Your task to perform on an android device: Clear all items from cart on walmart. Search for "usb-b" on walmart, select the first entry, add it to the cart, then select checkout. Image 0: 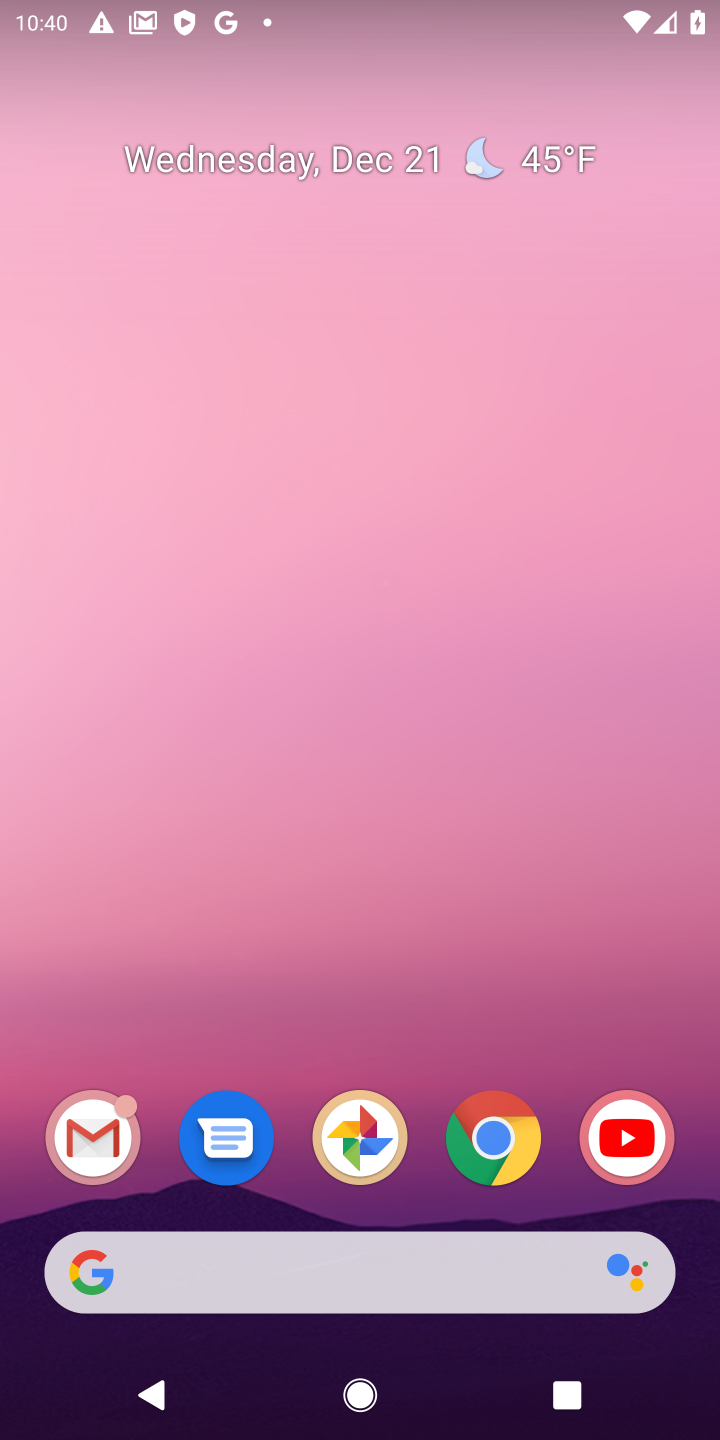
Step 0: click (494, 1154)
Your task to perform on an android device: Clear all items from cart on walmart. Search for "usb-b" on walmart, select the first entry, add it to the cart, then select checkout. Image 1: 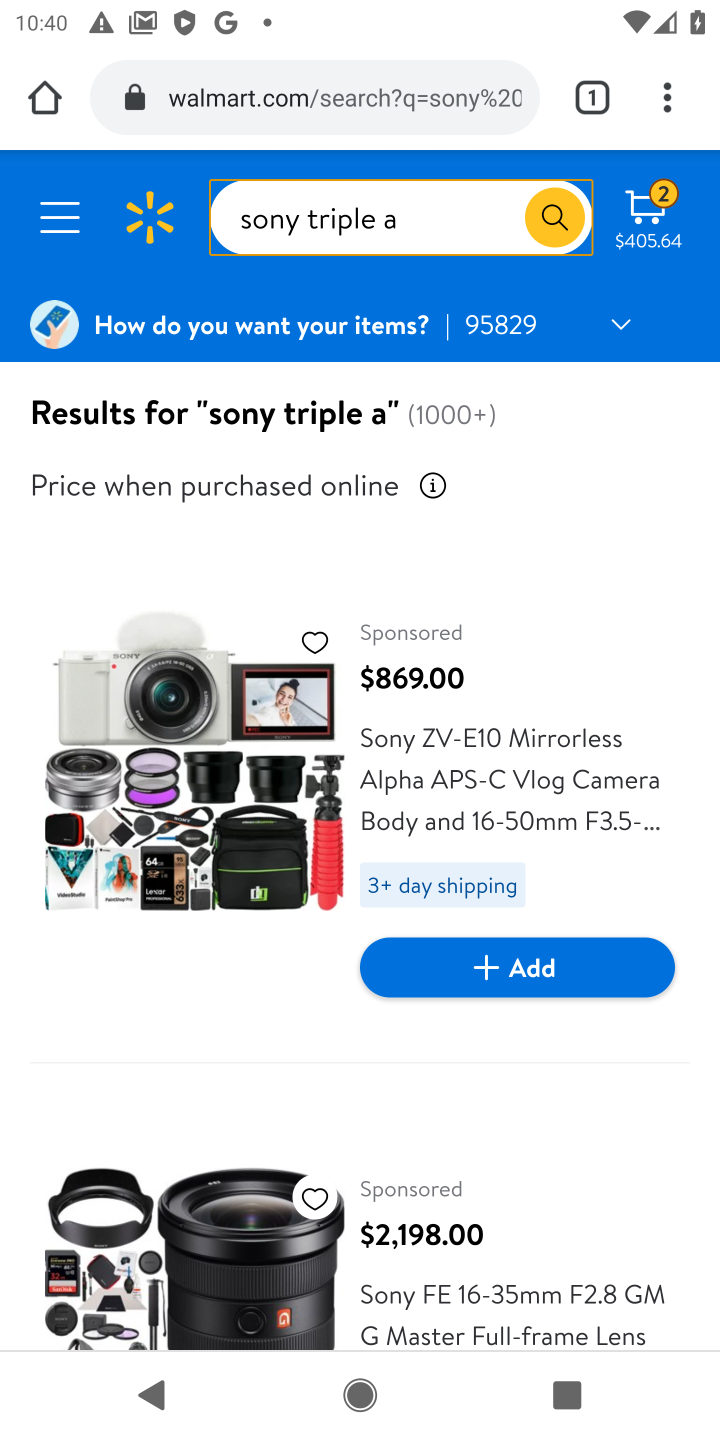
Step 1: click (652, 202)
Your task to perform on an android device: Clear all items from cart on walmart. Search for "usb-b" on walmart, select the first entry, add it to the cart, then select checkout. Image 2: 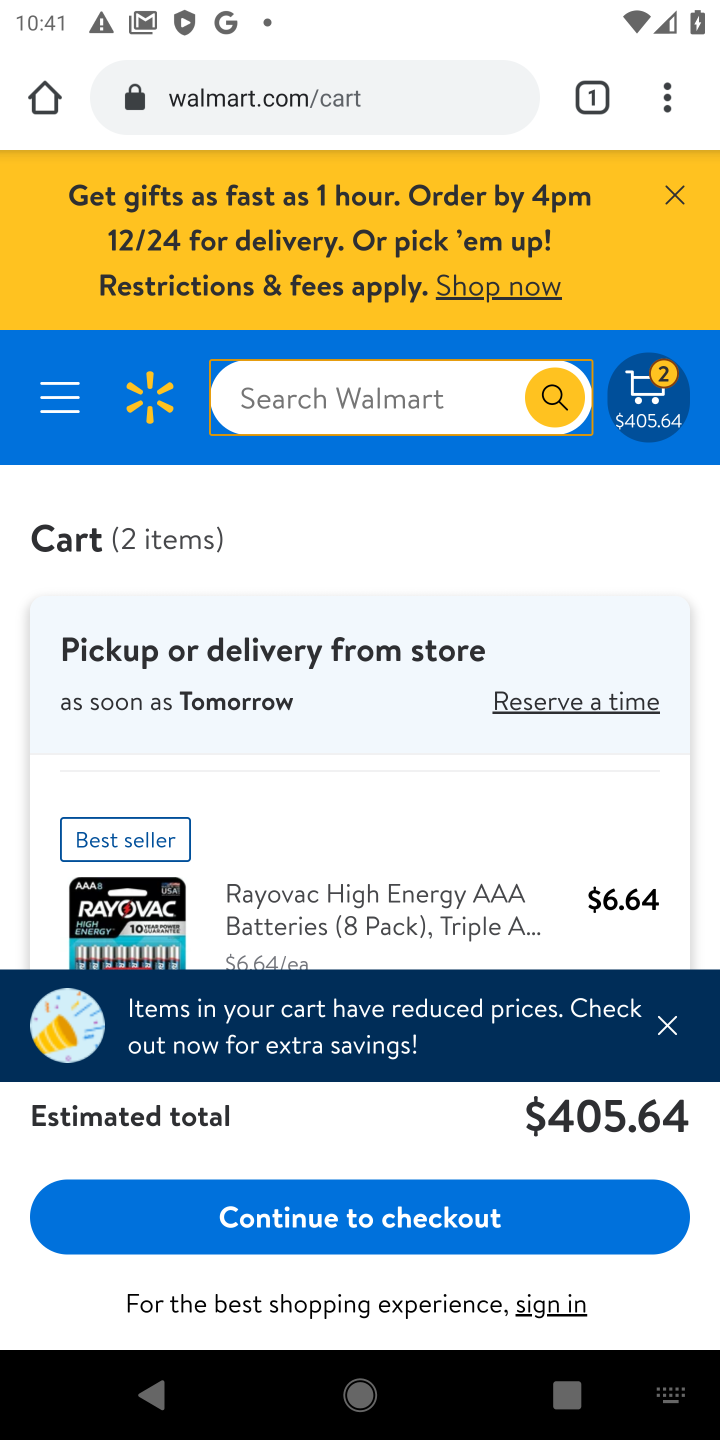
Step 2: drag from (438, 797) to (423, 265)
Your task to perform on an android device: Clear all items from cart on walmart. Search for "usb-b" on walmart, select the first entry, add it to the cart, then select checkout. Image 3: 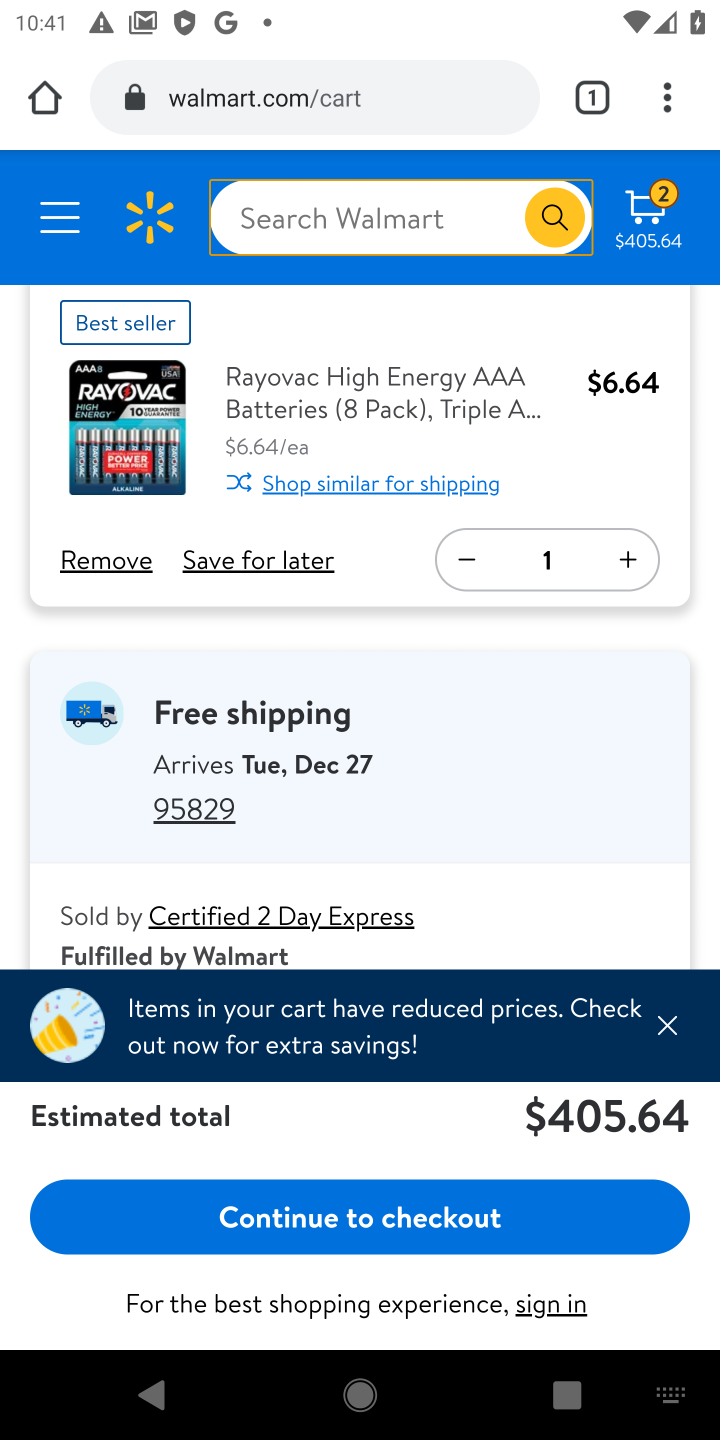
Step 3: click (389, 791)
Your task to perform on an android device: Clear all items from cart on walmart. Search for "usb-b" on walmart, select the first entry, add it to the cart, then select checkout. Image 4: 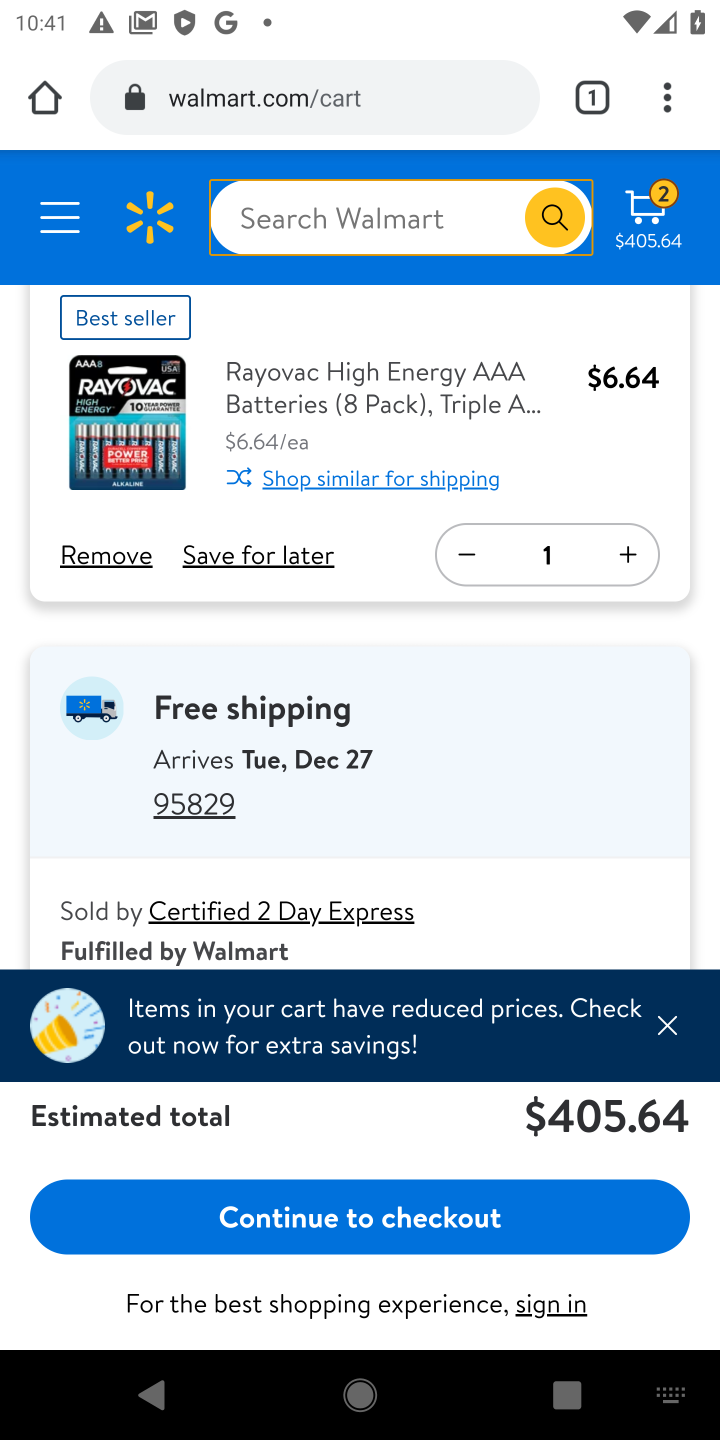
Step 4: click (98, 550)
Your task to perform on an android device: Clear all items from cart on walmart. Search for "usb-b" on walmart, select the first entry, add it to the cart, then select checkout. Image 5: 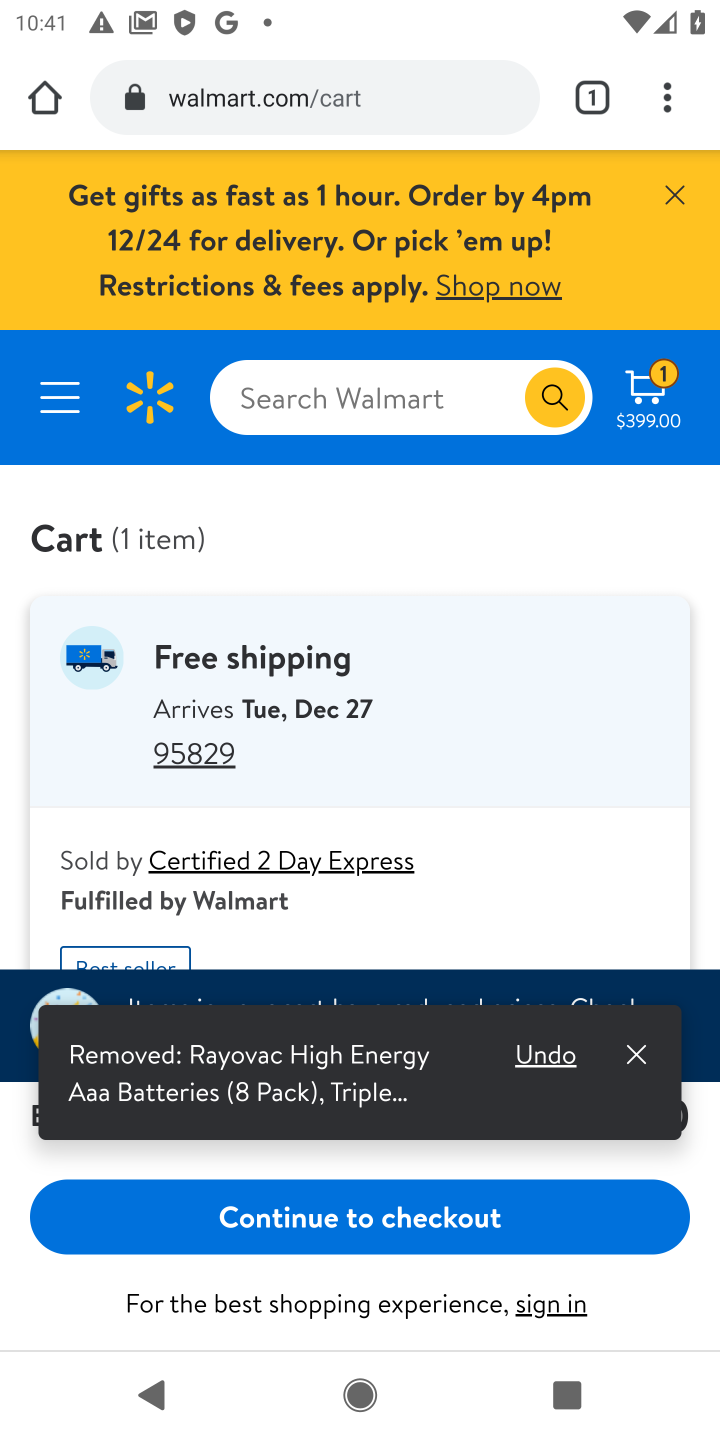
Step 5: drag from (326, 802) to (279, 344)
Your task to perform on an android device: Clear all items from cart on walmart. Search for "usb-b" on walmart, select the first entry, add it to the cart, then select checkout. Image 6: 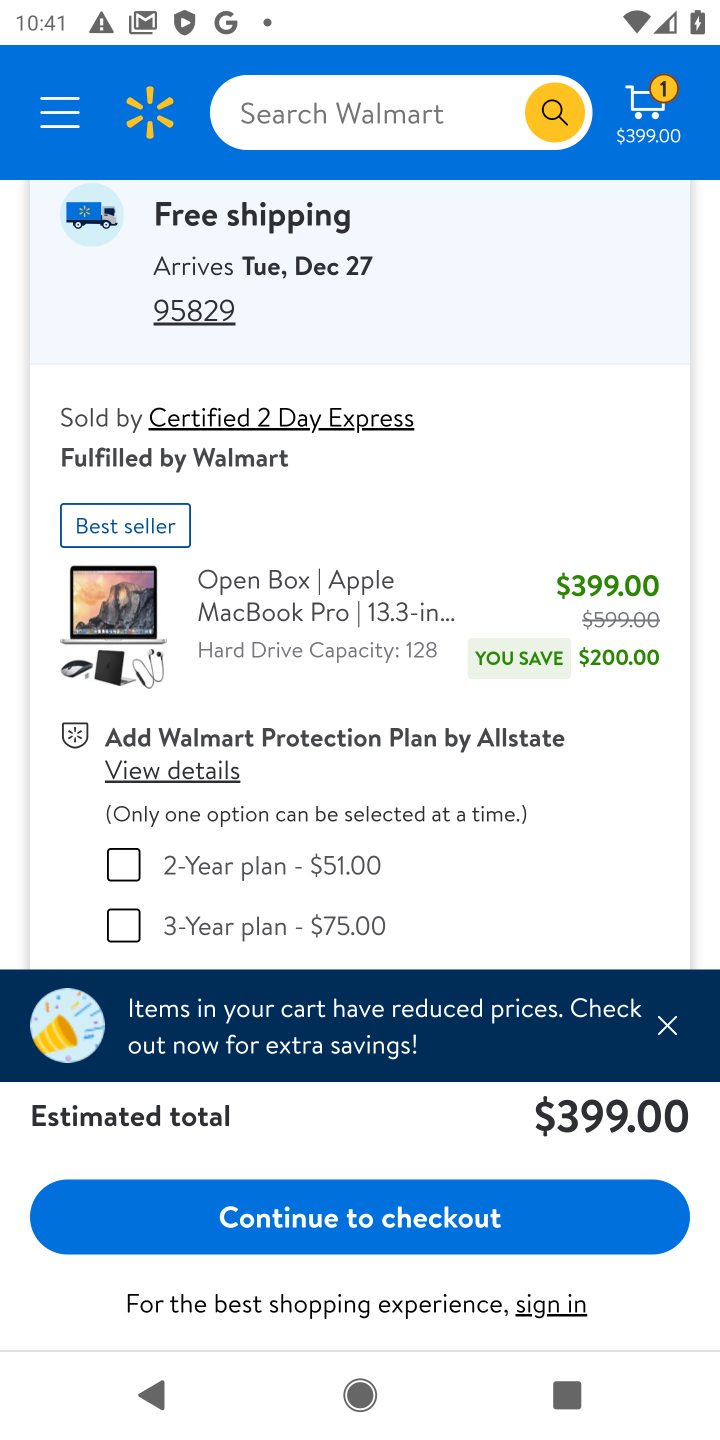
Step 6: drag from (325, 713) to (316, 474)
Your task to perform on an android device: Clear all items from cart on walmart. Search for "usb-b" on walmart, select the first entry, add it to the cart, then select checkout. Image 7: 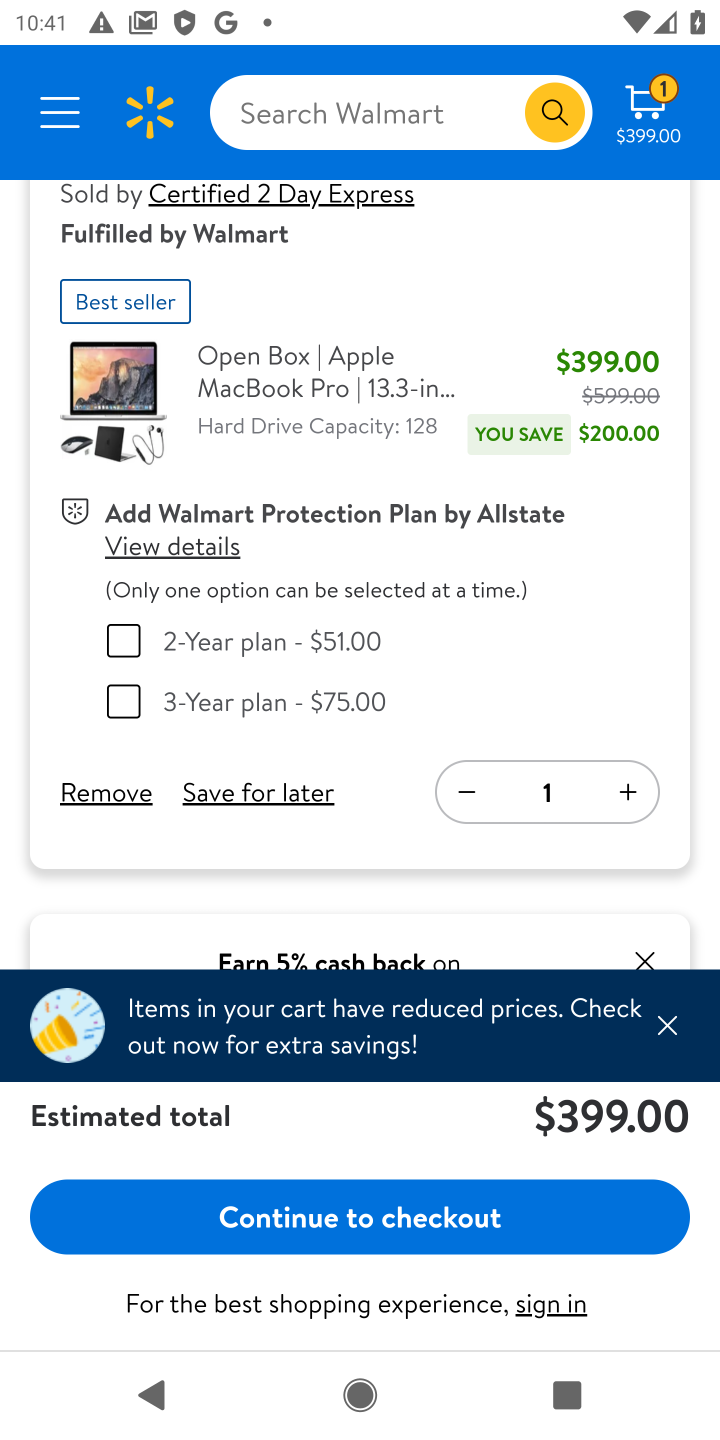
Step 7: click (81, 796)
Your task to perform on an android device: Clear all items from cart on walmart. Search for "usb-b" on walmart, select the first entry, add it to the cart, then select checkout. Image 8: 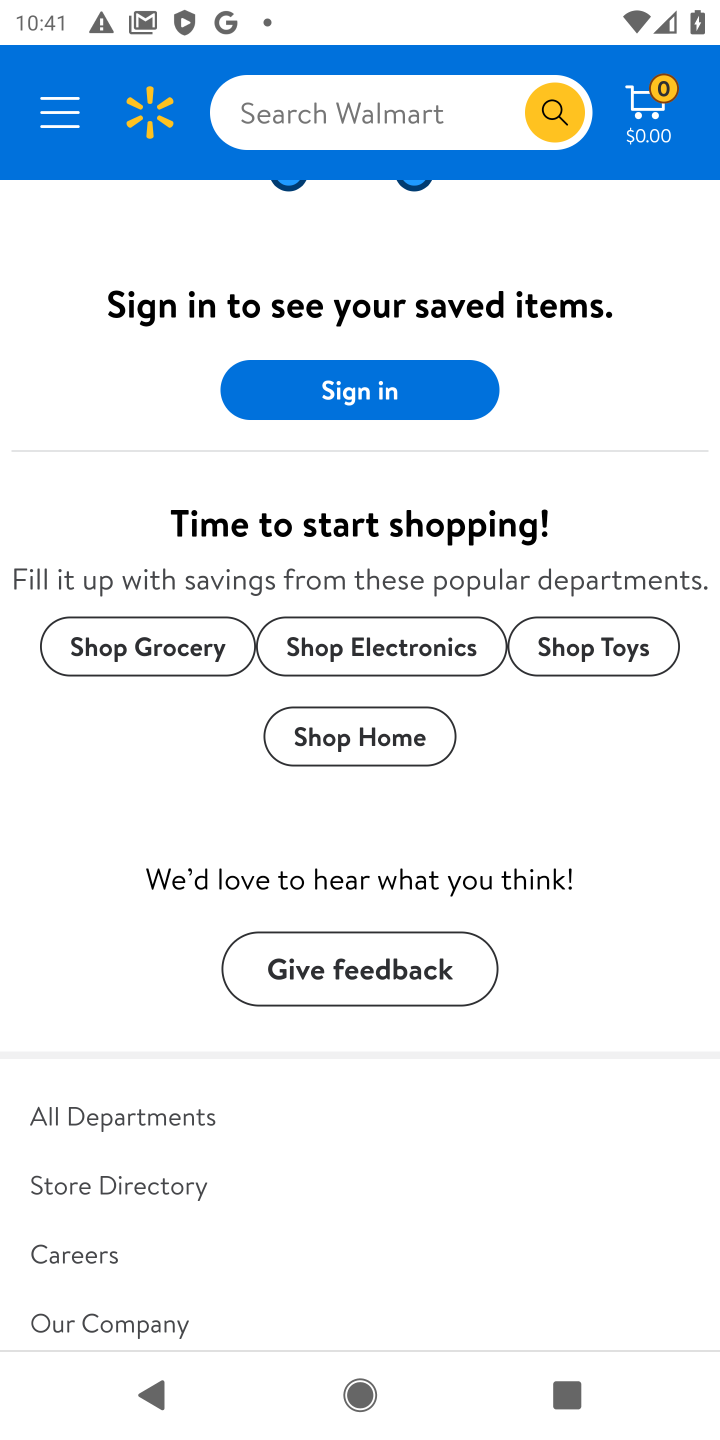
Step 8: click (285, 125)
Your task to perform on an android device: Clear all items from cart on walmart. Search for "usb-b" on walmart, select the first entry, add it to the cart, then select checkout. Image 9: 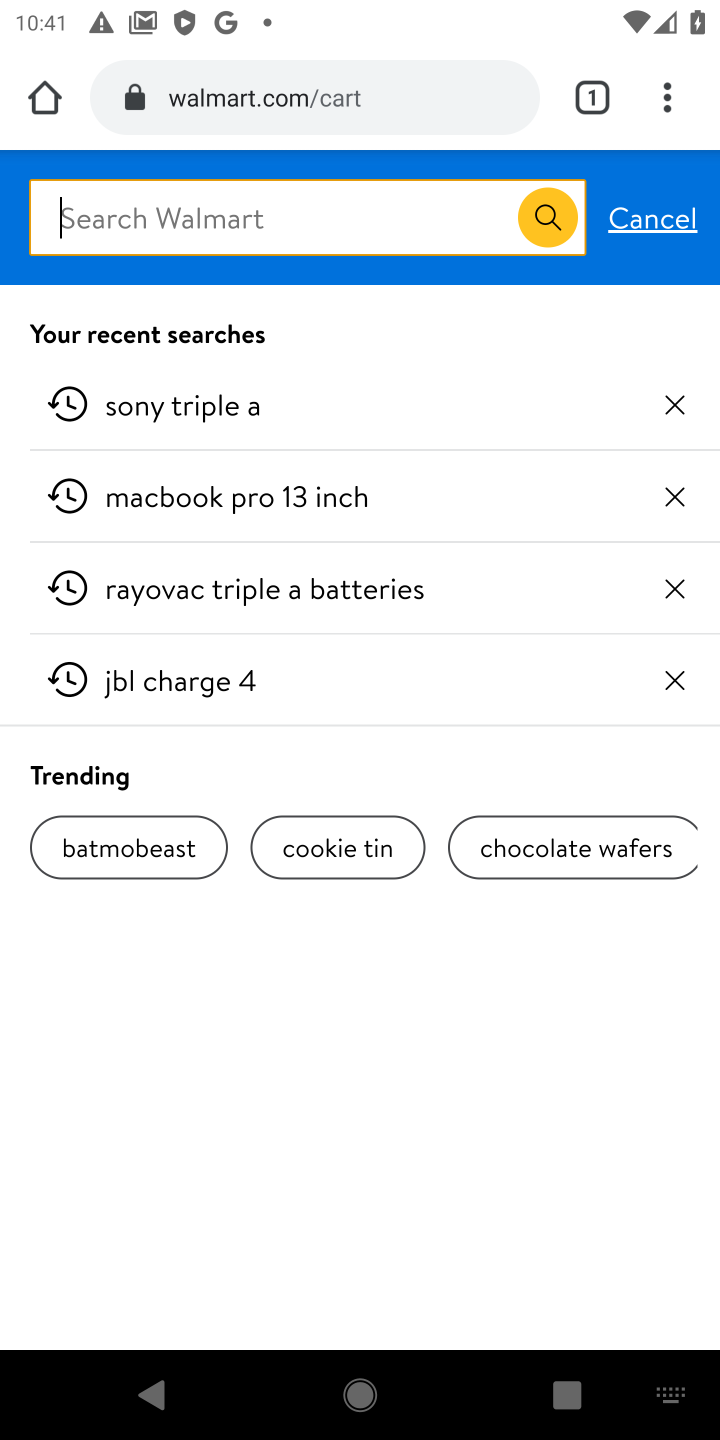
Step 9: type "usb-b"
Your task to perform on an android device: Clear all items from cart on walmart. Search for "usb-b" on walmart, select the first entry, add it to the cart, then select checkout. Image 10: 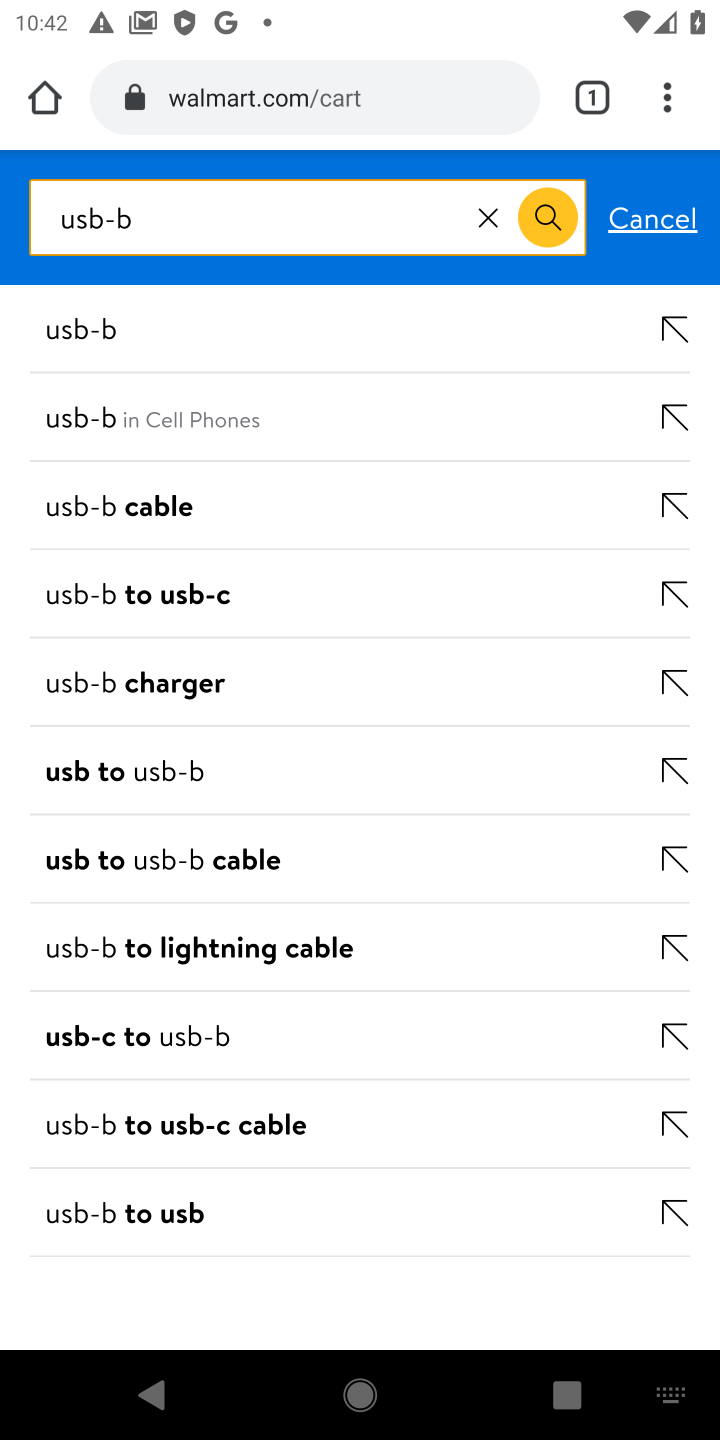
Step 10: click (100, 331)
Your task to perform on an android device: Clear all items from cart on walmart. Search for "usb-b" on walmart, select the first entry, add it to the cart, then select checkout. Image 11: 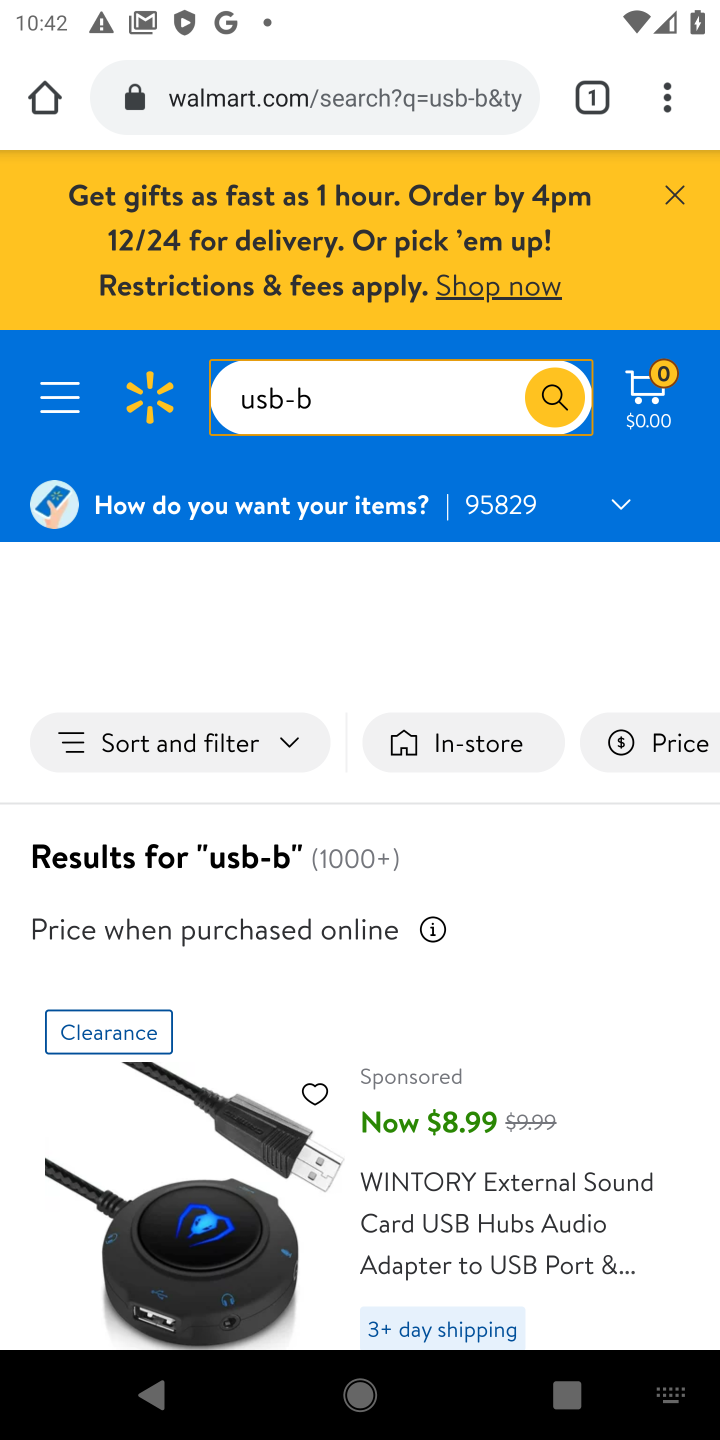
Step 11: drag from (325, 1145) to (322, 751)
Your task to perform on an android device: Clear all items from cart on walmart. Search for "usb-b" on walmart, select the first entry, add it to the cart, then select checkout. Image 12: 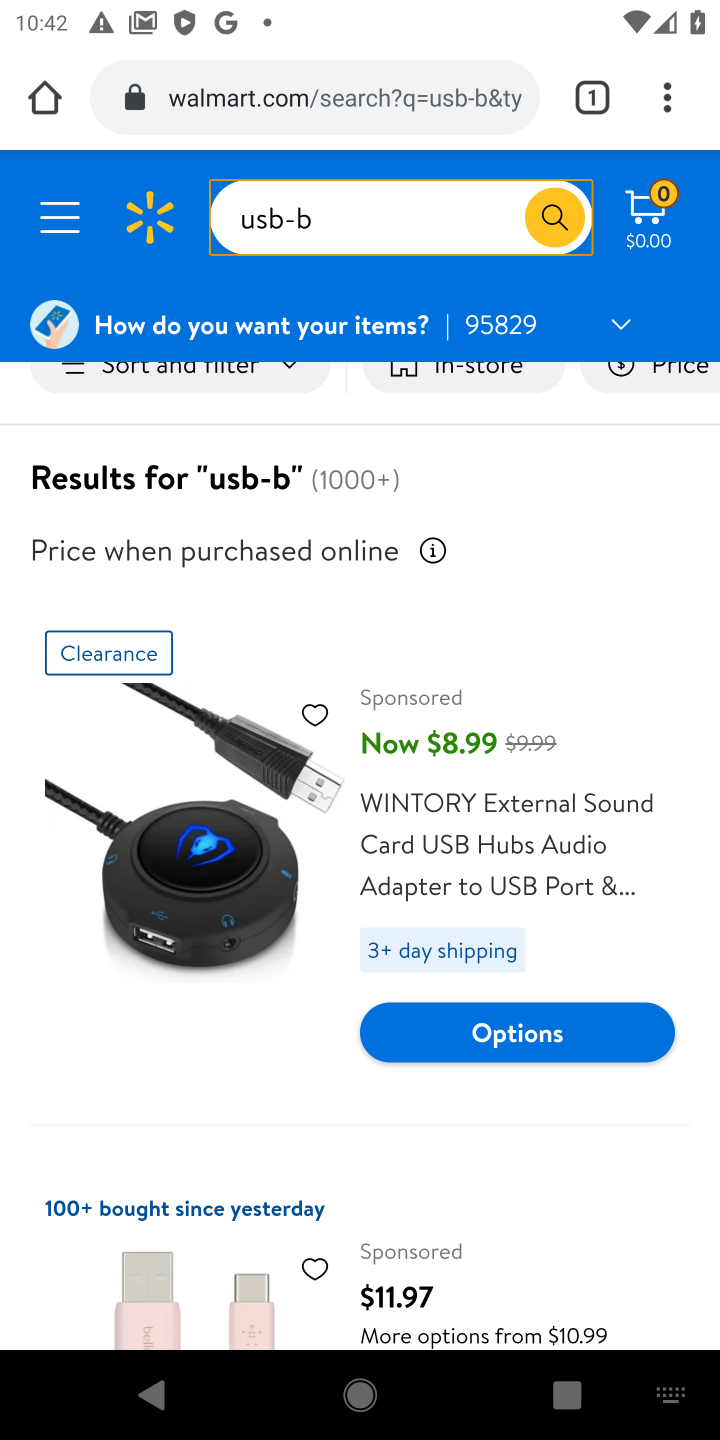
Step 12: click (464, 839)
Your task to perform on an android device: Clear all items from cart on walmart. Search for "usb-b" on walmart, select the first entry, add it to the cart, then select checkout. Image 13: 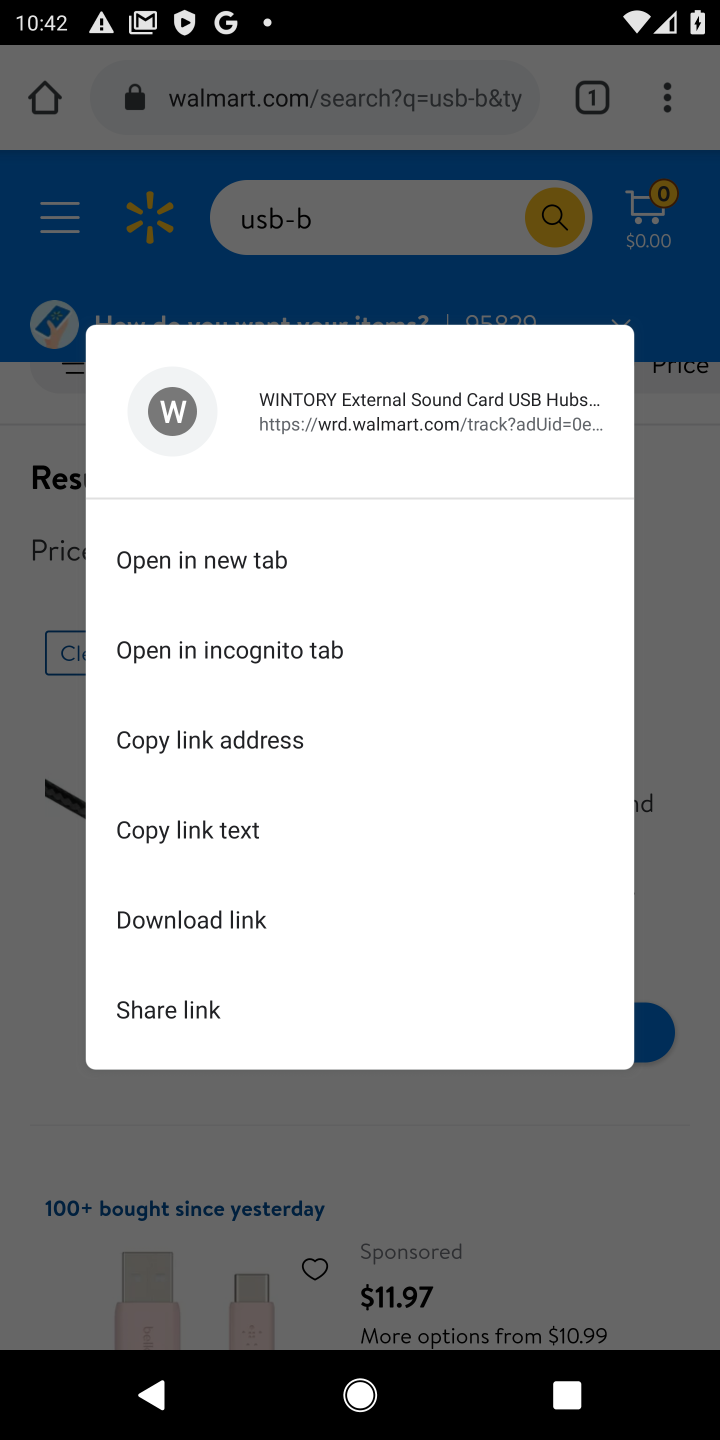
Step 13: click (679, 874)
Your task to perform on an android device: Clear all items from cart on walmart. Search for "usb-b" on walmart, select the first entry, add it to the cart, then select checkout. Image 14: 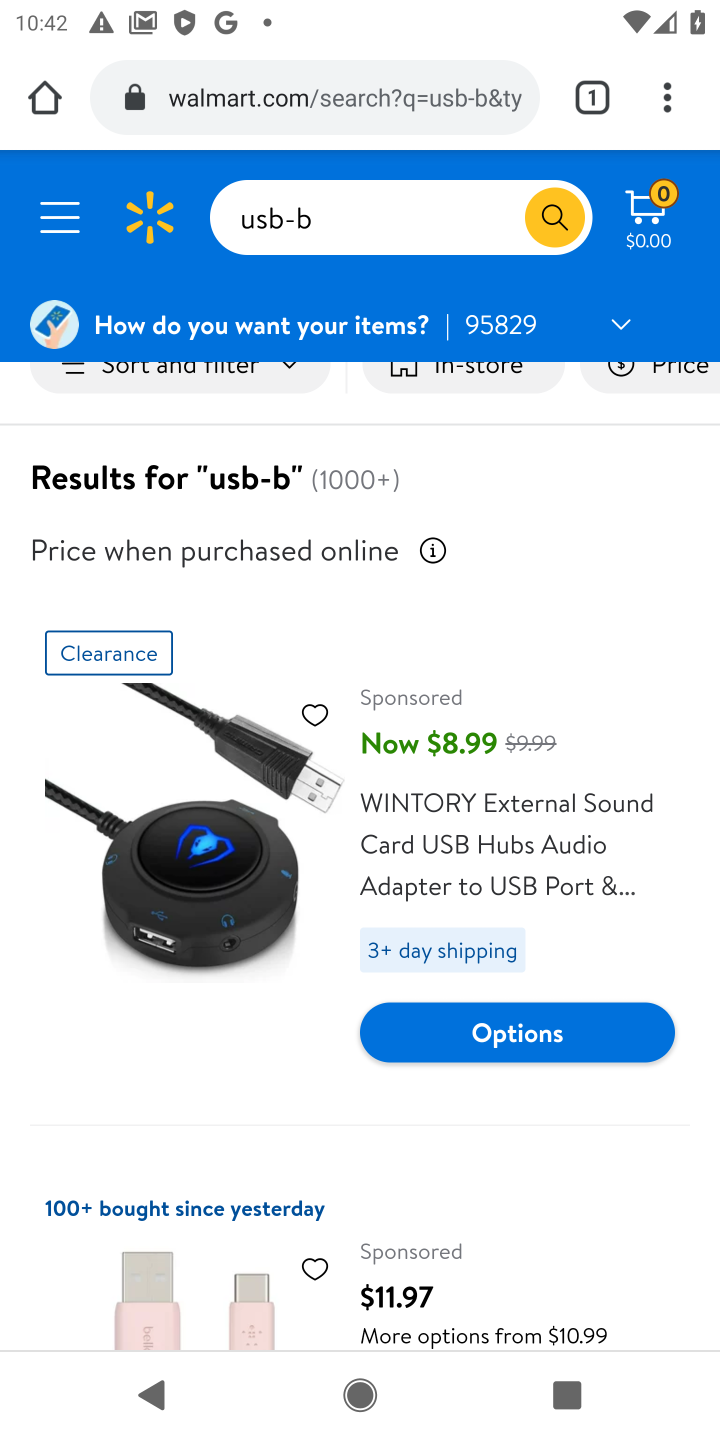
Step 14: click (458, 846)
Your task to perform on an android device: Clear all items from cart on walmart. Search for "usb-b" on walmart, select the first entry, add it to the cart, then select checkout. Image 15: 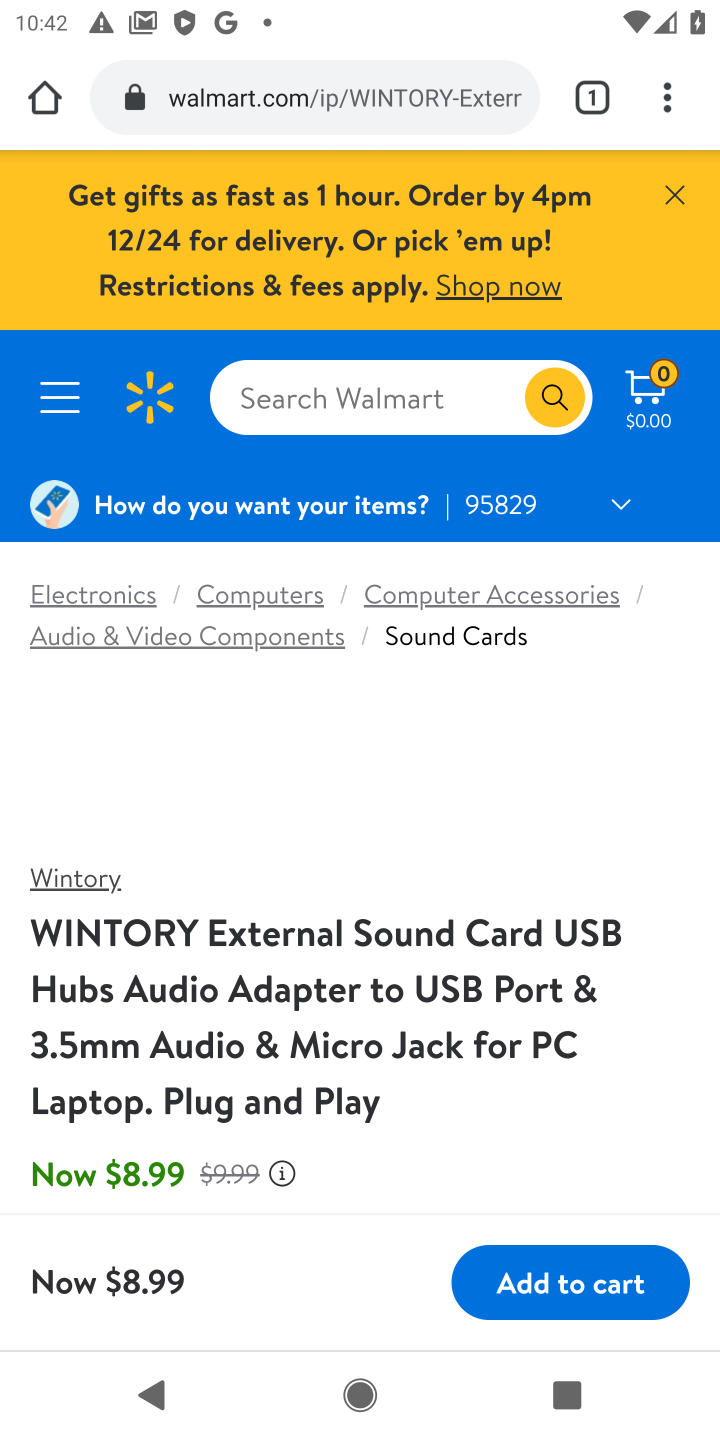
Step 15: task complete